Your task to perform on an android device: Turn on the flashlight Image 0: 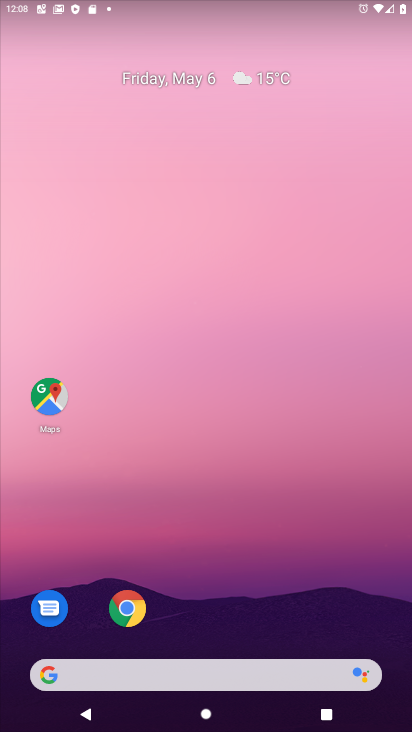
Step 0: drag from (265, 609) to (285, 167)
Your task to perform on an android device: Turn on the flashlight Image 1: 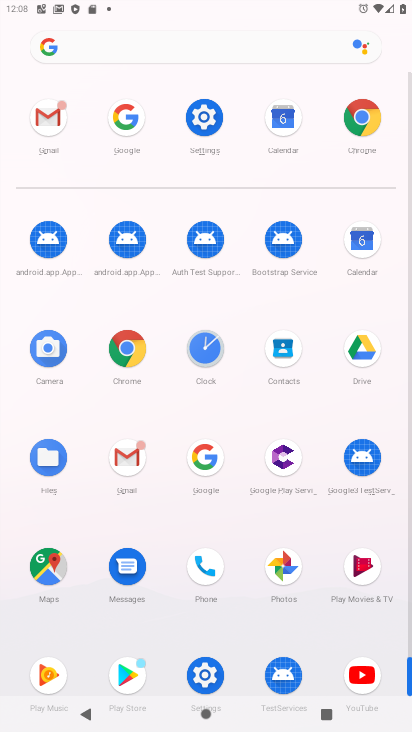
Step 1: click (207, 122)
Your task to perform on an android device: Turn on the flashlight Image 2: 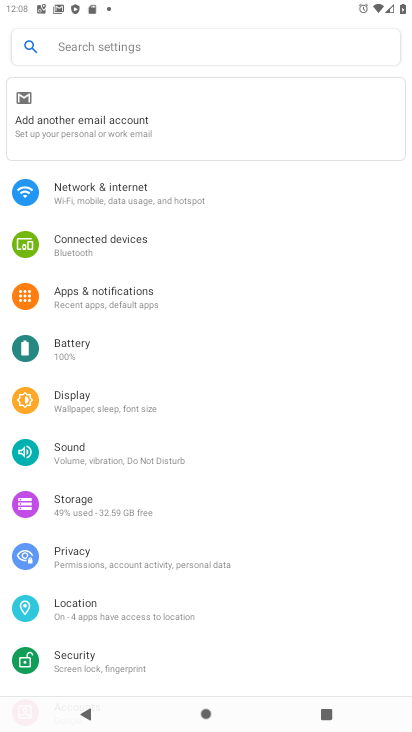
Step 2: click (131, 42)
Your task to perform on an android device: Turn on the flashlight Image 3: 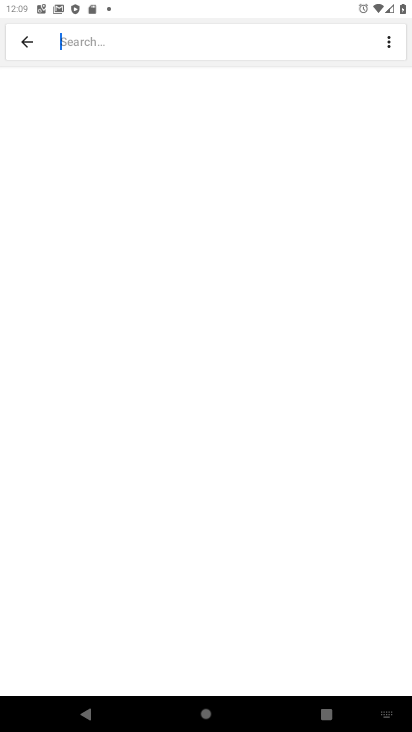
Step 3: type "flashlight"
Your task to perform on an android device: Turn on the flashlight Image 4: 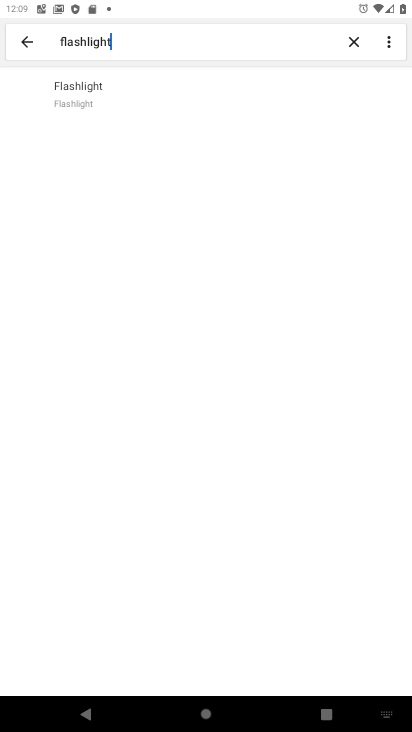
Step 4: click (91, 95)
Your task to perform on an android device: Turn on the flashlight Image 5: 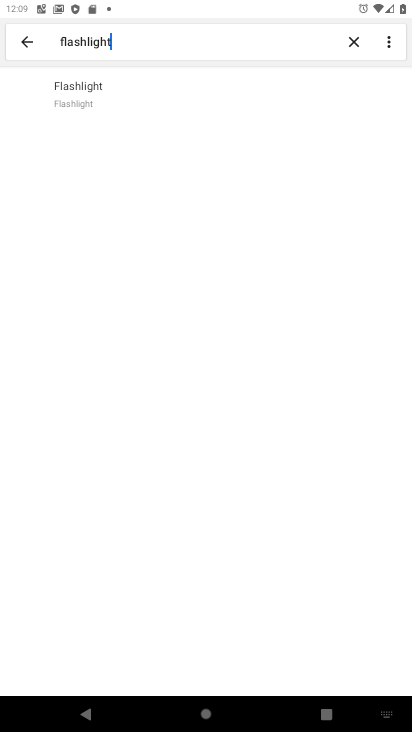
Step 5: task complete